Your task to perform on an android device: Open the web browser Image 0: 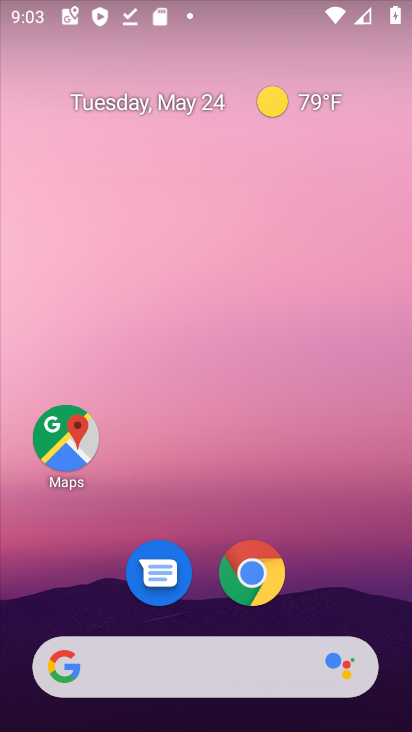
Step 0: drag from (392, 667) to (175, 2)
Your task to perform on an android device: Open the web browser Image 1: 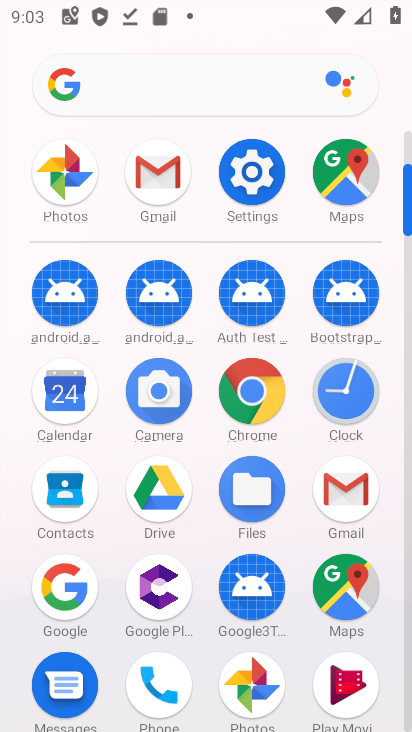
Step 1: click (256, 394)
Your task to perform on an android device: Open the web browser Image 2: 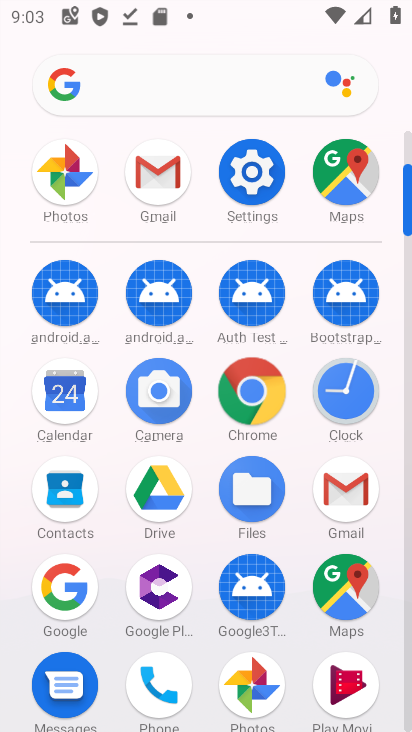
Step 2: click (257, 392)
Your task to perform on an android device: Open the web browser Image 3: 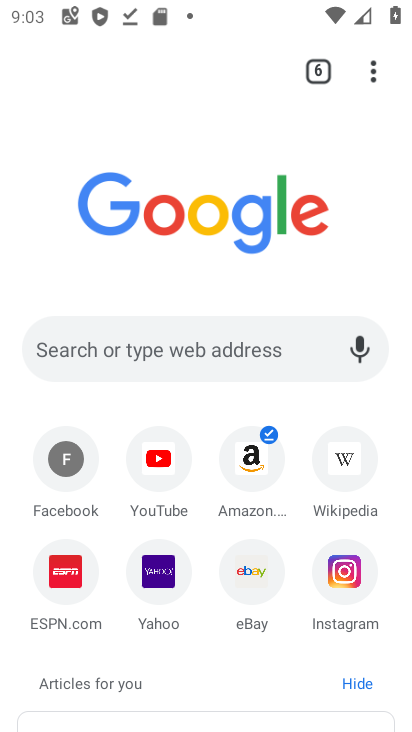
Step 3: click (61, 332)
Your task to perform on an android device: Open the web browser Image 4: 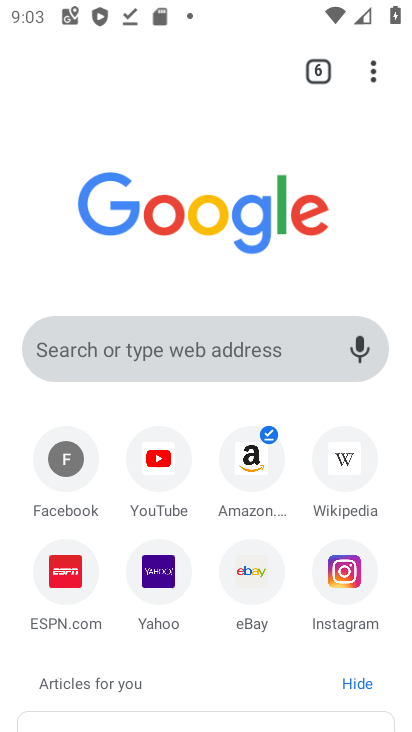
Step 4: click (62, 328)
Your task to perform on an android device: Open the web browser Image 5: 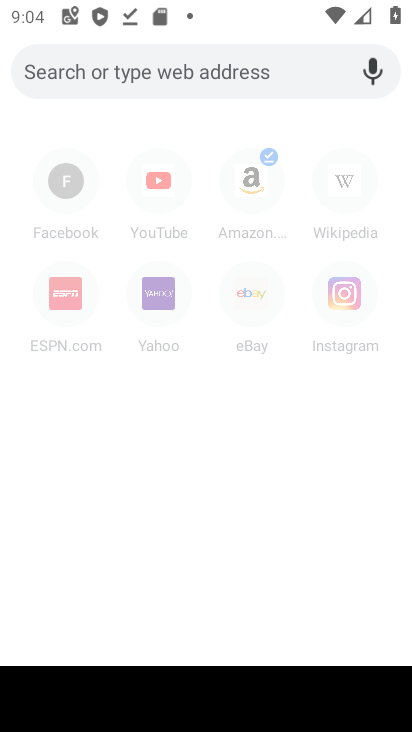
Step 5: click (55, 86)
Your task to perform on an android device: Open the web browser Image 6: 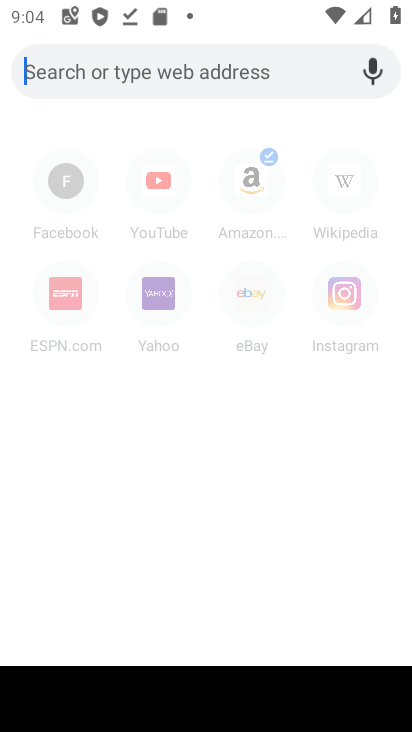
Step 6: click (65, 68)
Your task to perform on an android device: Open the web browser Image 7: 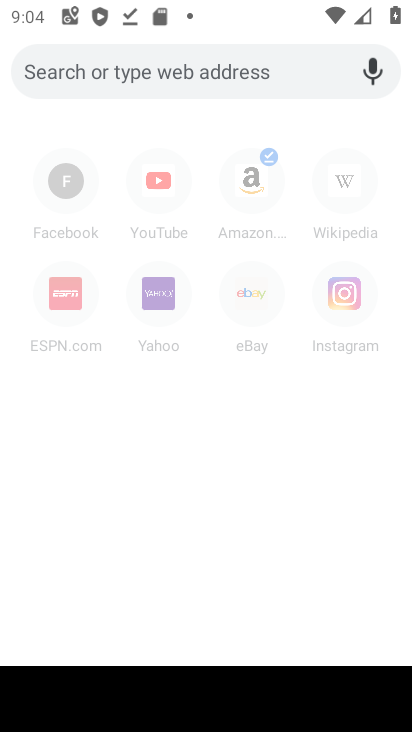
Step 7: task complete